Your task to perform on an android device: Go to calendar. Show me events next week Image 0: 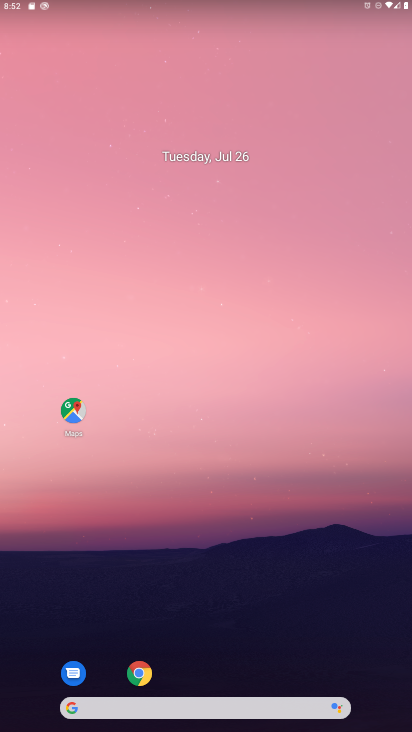
Step 0: drag from (355, 645) to (147, 95)
Your task to perform on an android device: Go to calendar. Show me events next week Image 1: 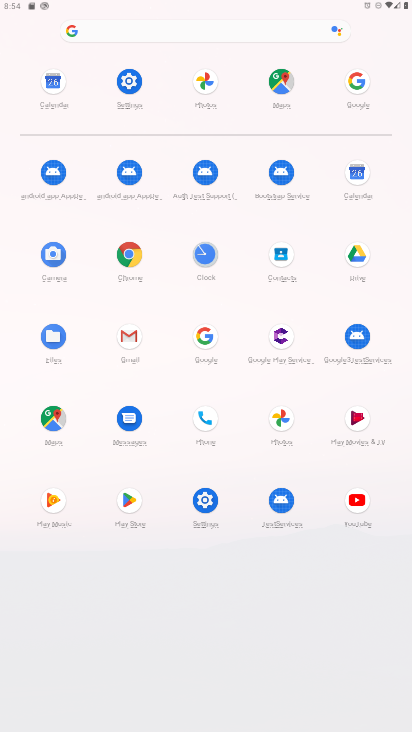
Step 1: click (353, 181)
Your task to perform on an android device: Go to calendar. Show me events next week Image 2: 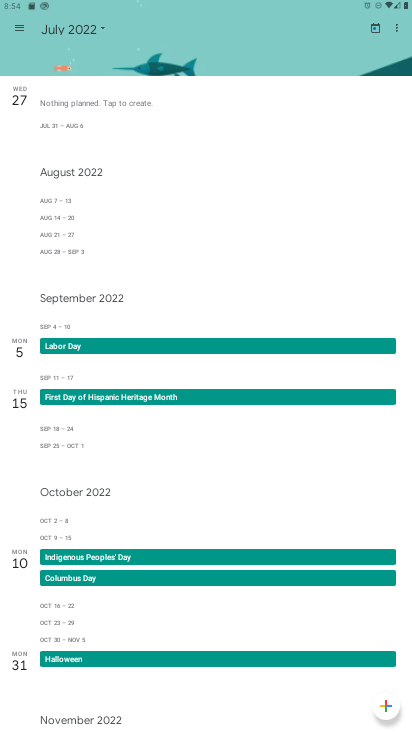
Step 2: task complete